Your task to perform on an android device: Go to Yahoo.com Image 0: 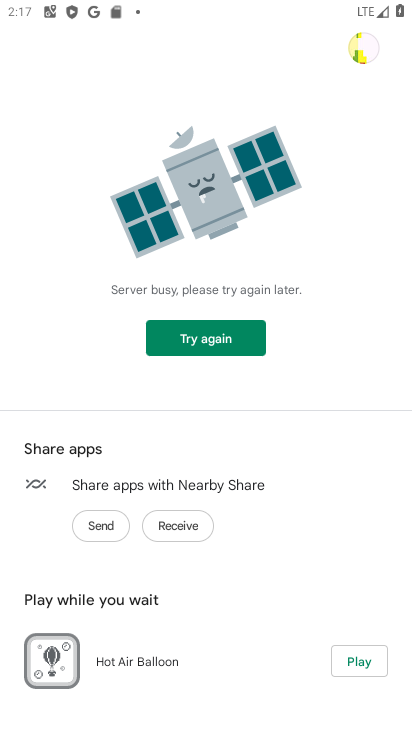
Step 0: press home button
Your task to perform on an android device: Go to Yahoo.com Image 1: 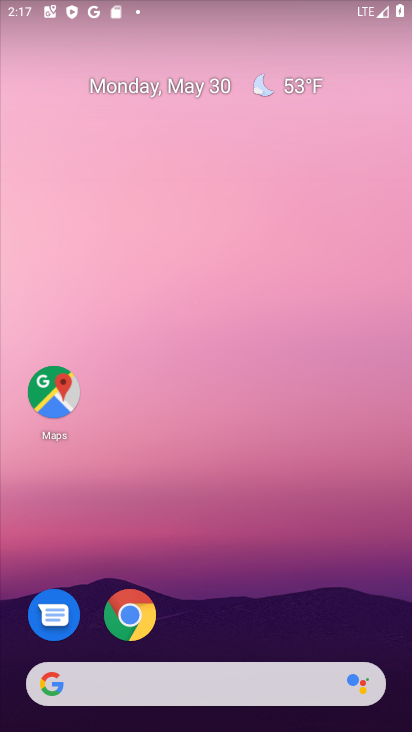
Step 1: click (144, 608)
Your task to perform on an android device: Go to Yahoo.com Image 2: 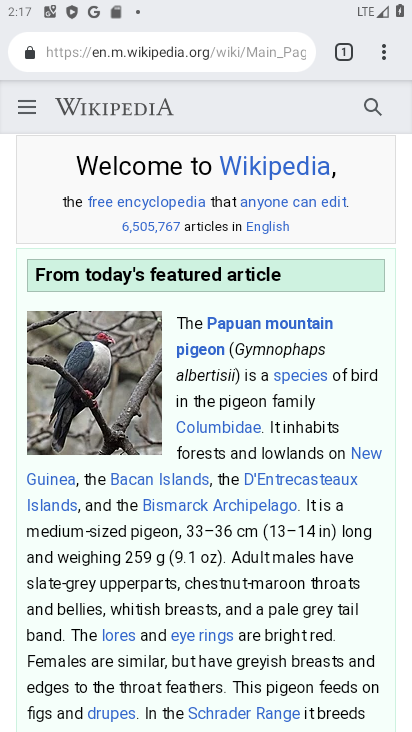
Step 2: click (156, 56)
Your task to perform on an android device: Go to Yahoo.com Image 3: 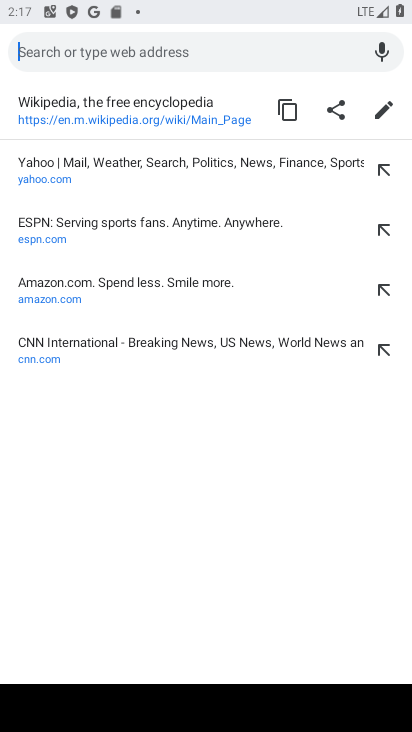
Step 3: click (202, 165)
Your task to perform on an android device: Go to Yahoo.com Image 4: 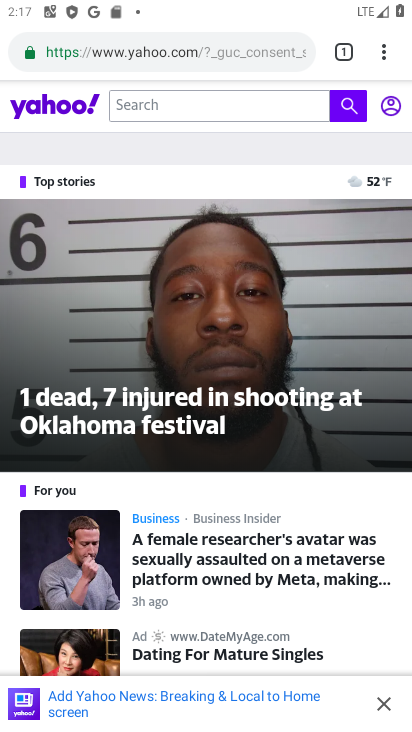
Step 4: task complete